Your task to perform on an android device: Go to Android settings Image 0: 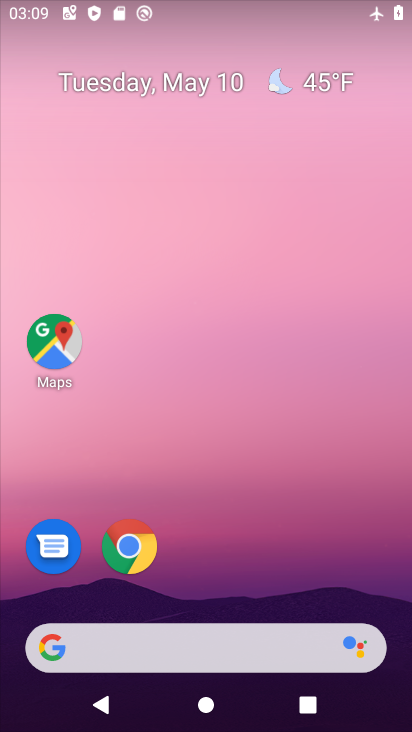
Step 0: drag from (322, 542) to (255, 1)
Your task to perform on an android device: Go to Android settings Image 1: 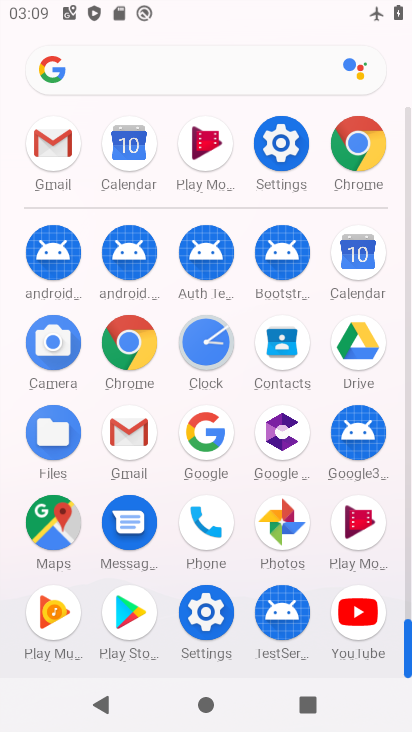
Step 1: drag from (16, 584) to (7, 324)
Your task to perform on an android device: Go to Android settings Image 2: 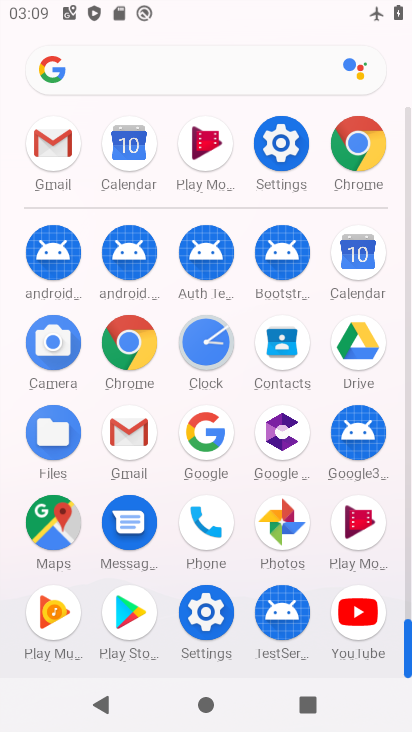
Step 2: click (205, 608)
Your task to perform on an android device: Go to Android settings Image 3: 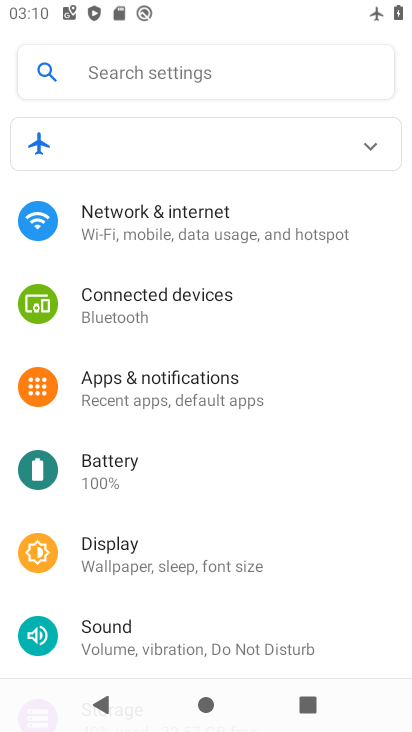
Step 3: task complete